Your task to perform on an android device: Checkthe settings for the Amazon Prime Music app Image 0: 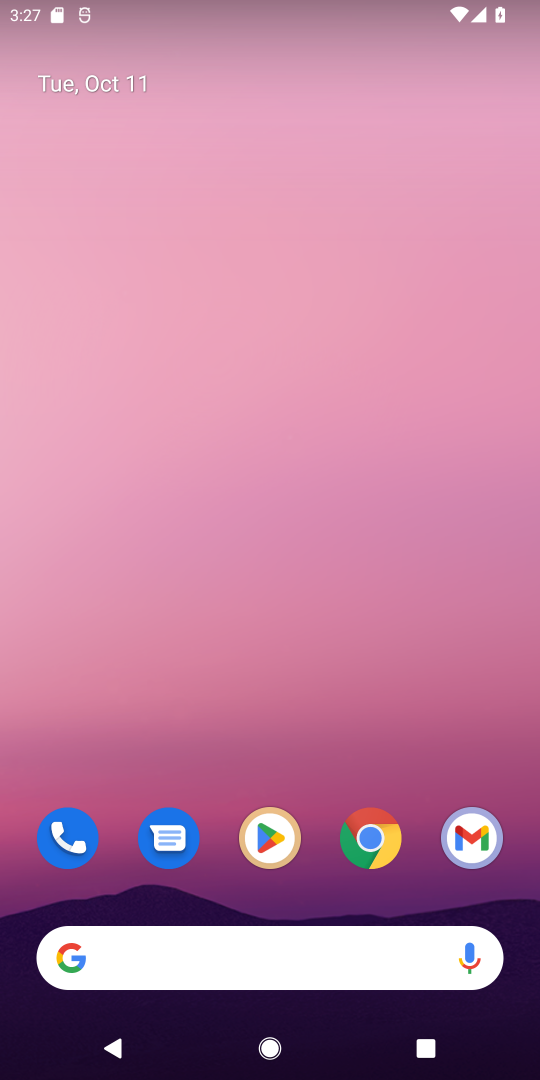
Step 0: click (379, 840)
Your task to perform on an android device: Checkthe settings for the Amazon Prime Music app Image 1: 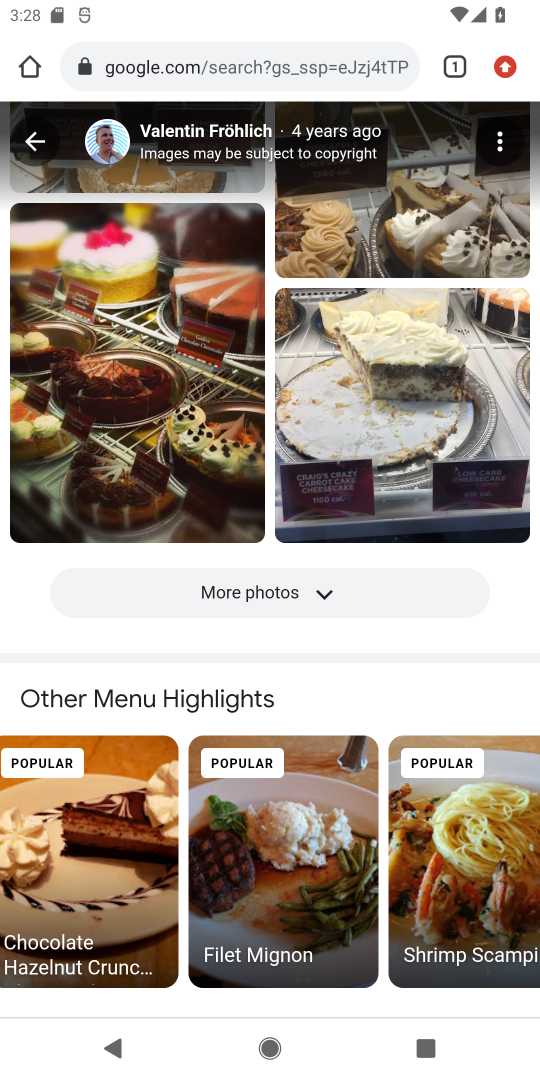
Step 1: click (161, 55)
Your task to perform on an android device: Checkthe settings for the Amazon Prime Music app Image 2: 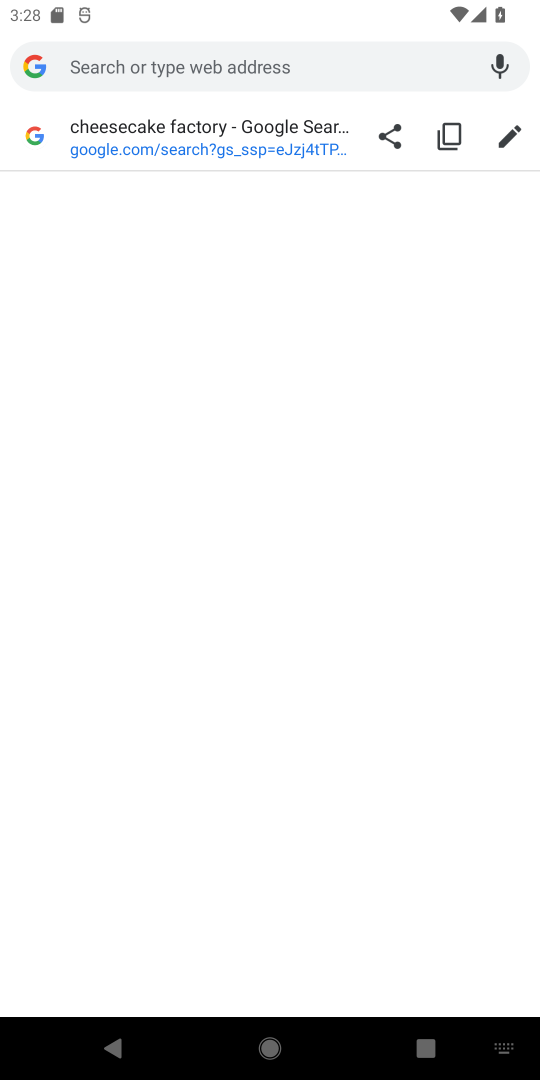
Step 2: type "amazon prime music app"
Your task to perform on an android device: Checkthe settings for the Amazon Prime Music app Image 3: 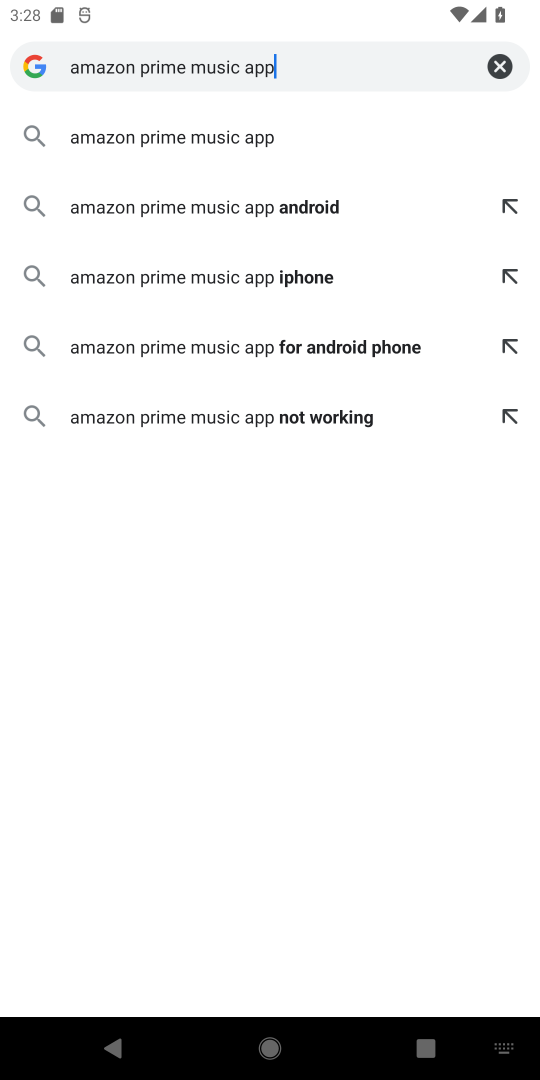
Step 3: click (225, 144)
Your task to perform on an android device: Checkthe settings for the Amazon Prime Music app Image 4: 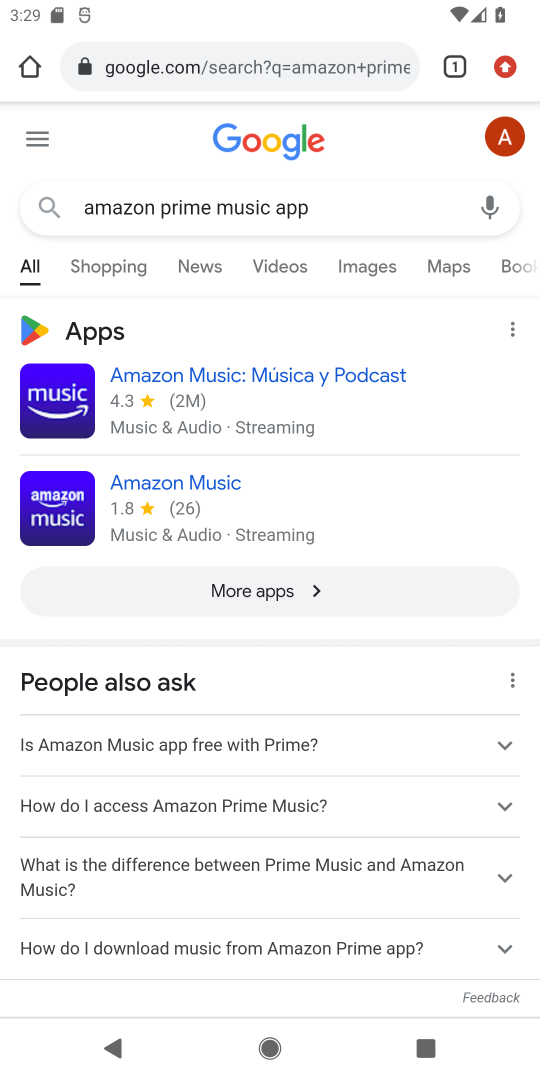
Step 4: click (149, 375)
Your task to perform on an android device: Checkthe settings for the Amazon Prime Music app Image 5: 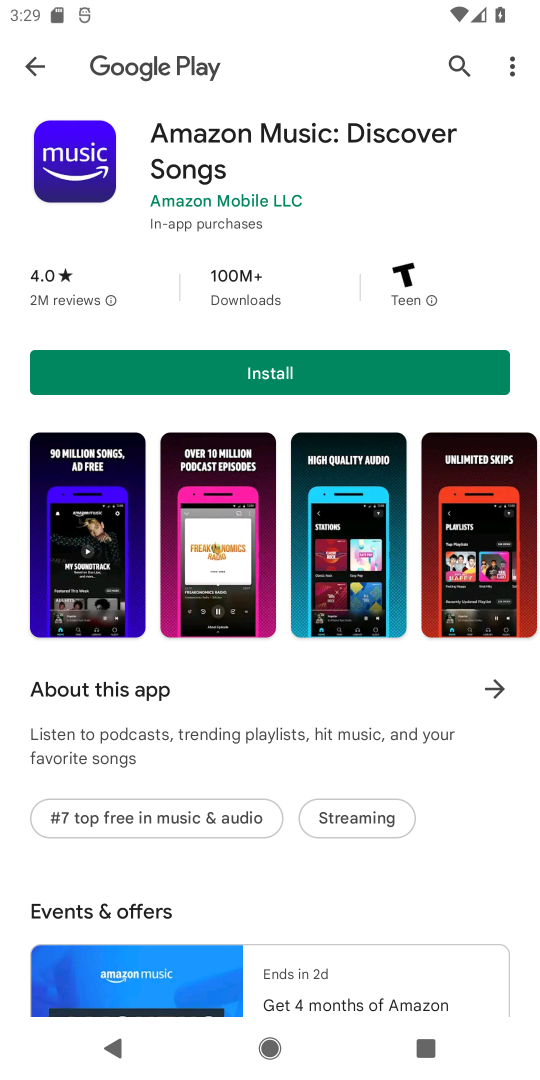
Step 5: click (149, 375)
Your task to perform on an android device: Checkthe settings for the Amazon Prime Music app Image 6: 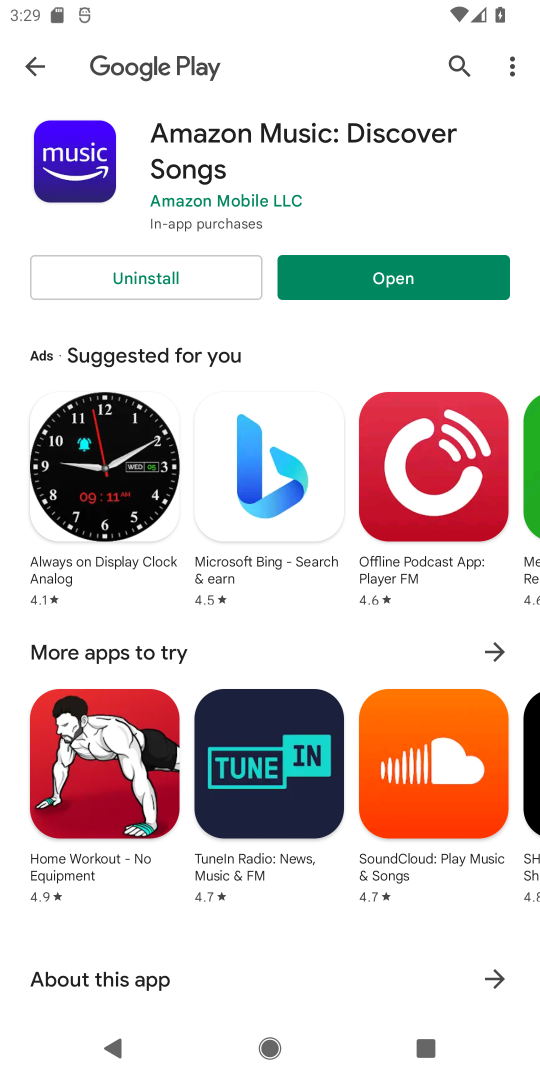
Step 6: click (398, 269)
Your task to perform on an android device: Checkthe settings for the Amazon Prime Music app Image 7: 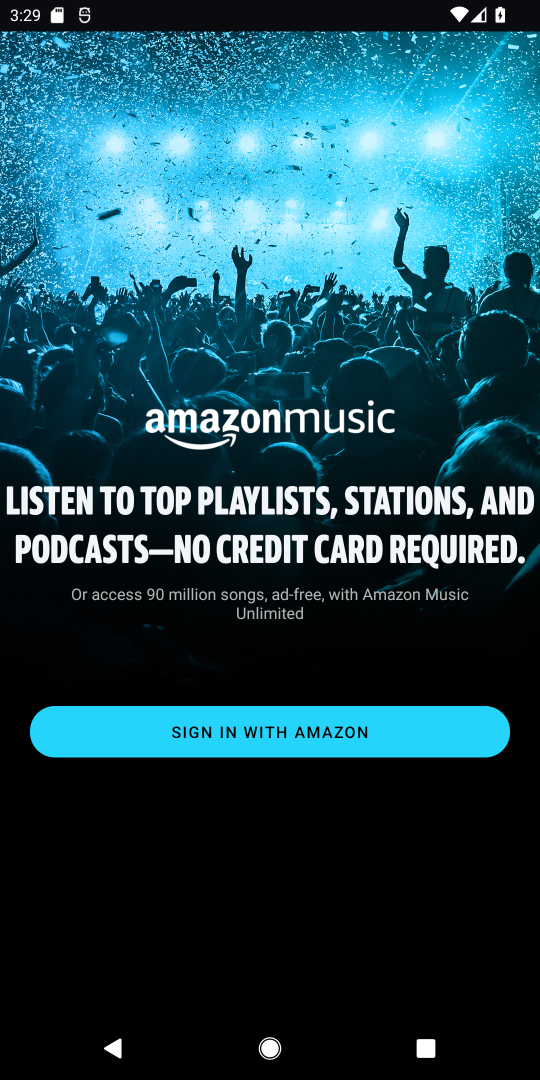
Step 7: click (344, 750)
Your task to perform on an android device: Checkthe settings for the Amazon Prime Music app Image 8: 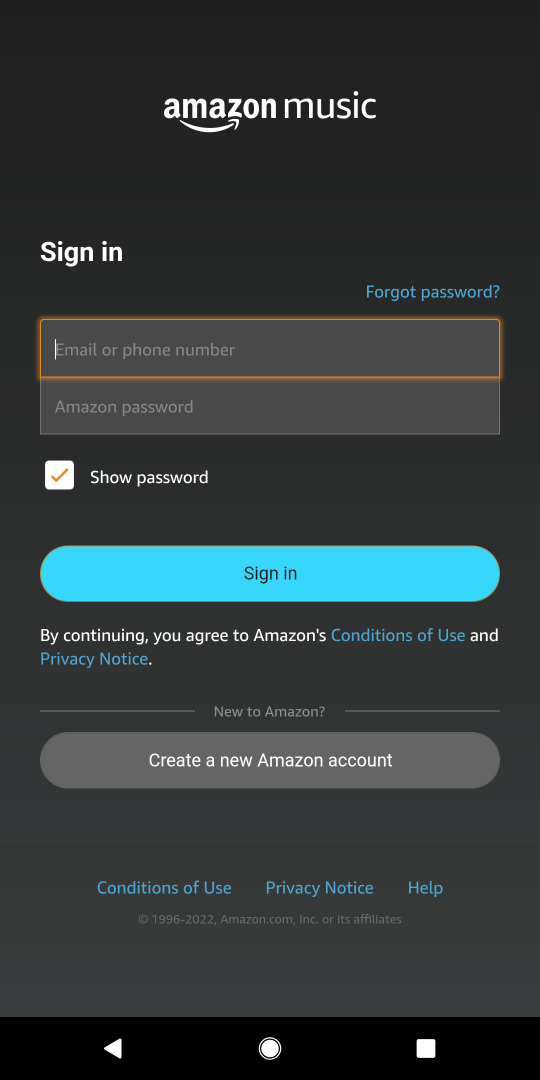
Step 8: press back button
Your task to perform on an android device: Checkthe settings for the Amazon Prime Music app Image 9: 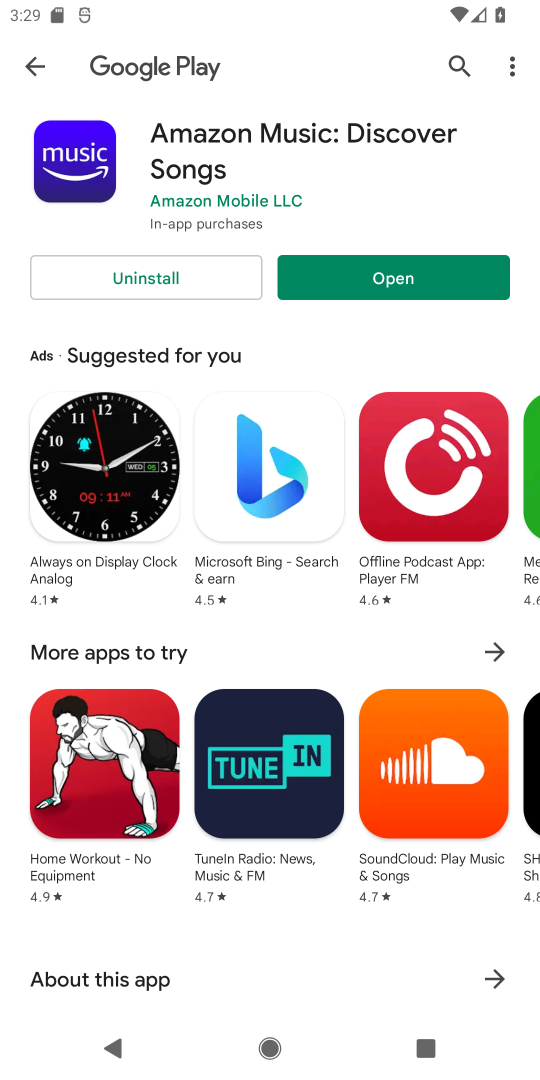
Step 9: drag from (235, 499) to (224, 385)
Your task to perform on an android device: Checkthe settings for the Amazon Prime Music app Image 10: 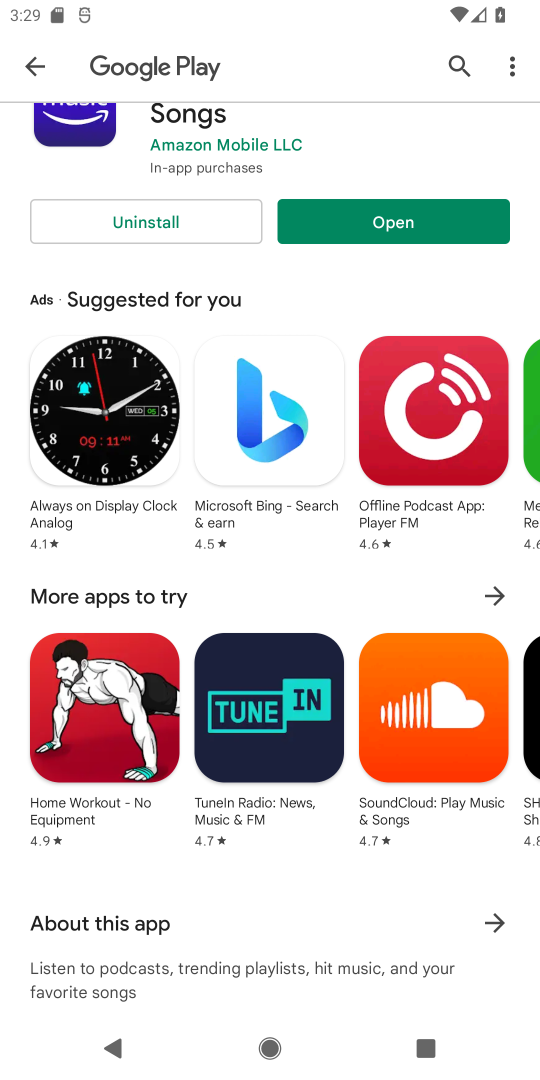
Step 10: drag from (237, 713) to (252, 298)
Your task to perform on an android device: Checkthe settings for the Amazon Prime Music app Image 11: 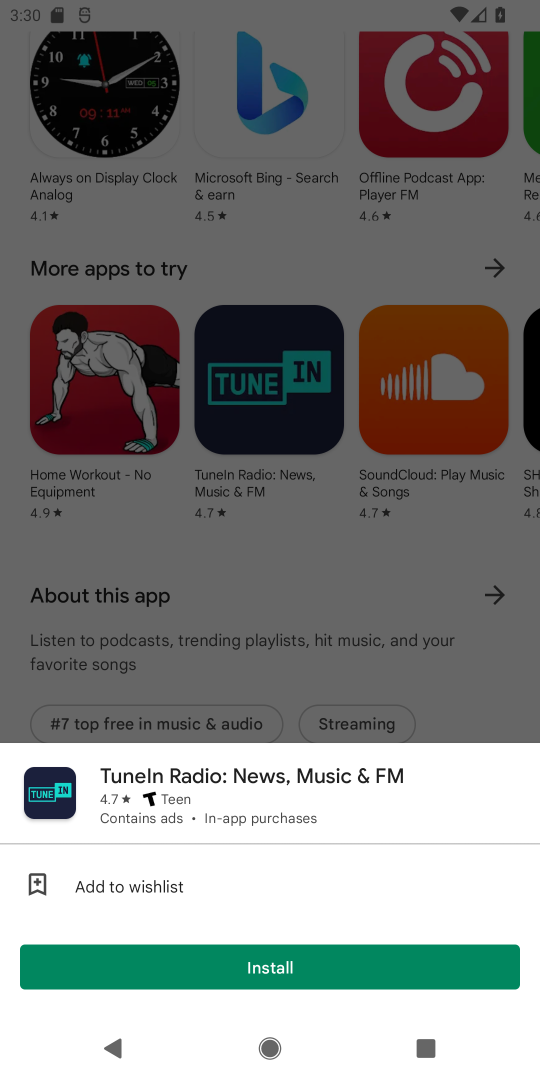
Step 11: click (539, 769)
Your task to perform on an android device: Checkthe settings for the Amazon Prime Music app Image 12: 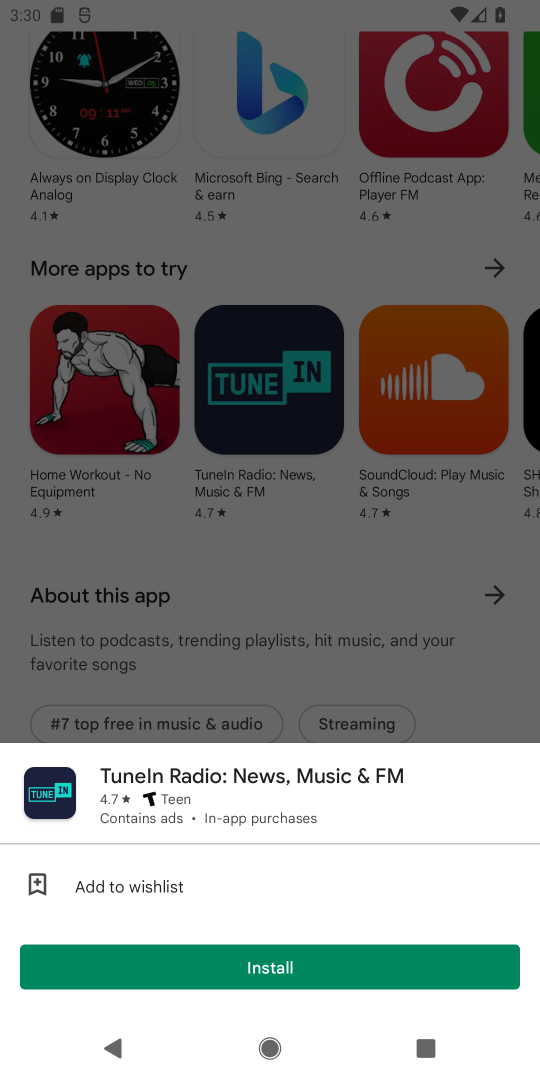
Step 12: drag from (387, 548) to (408, 353)
Your task to perform on an android device: Checkthe settings for the Amazon Prime Music app Image 13: 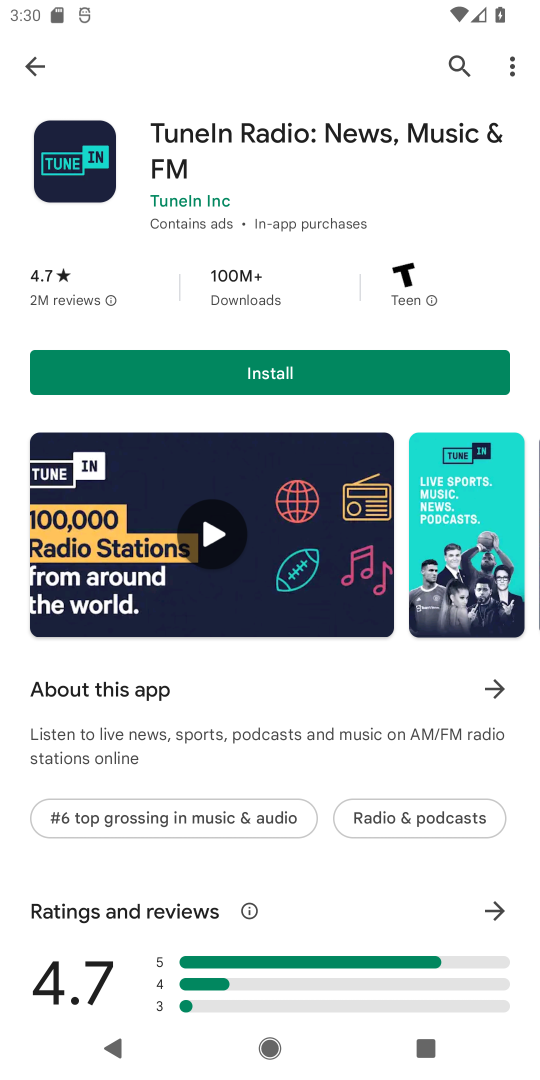
Step 13: press home button
Your task to perform on an android device: Checkthe settings for the Amazon Prime Music app Image 14: 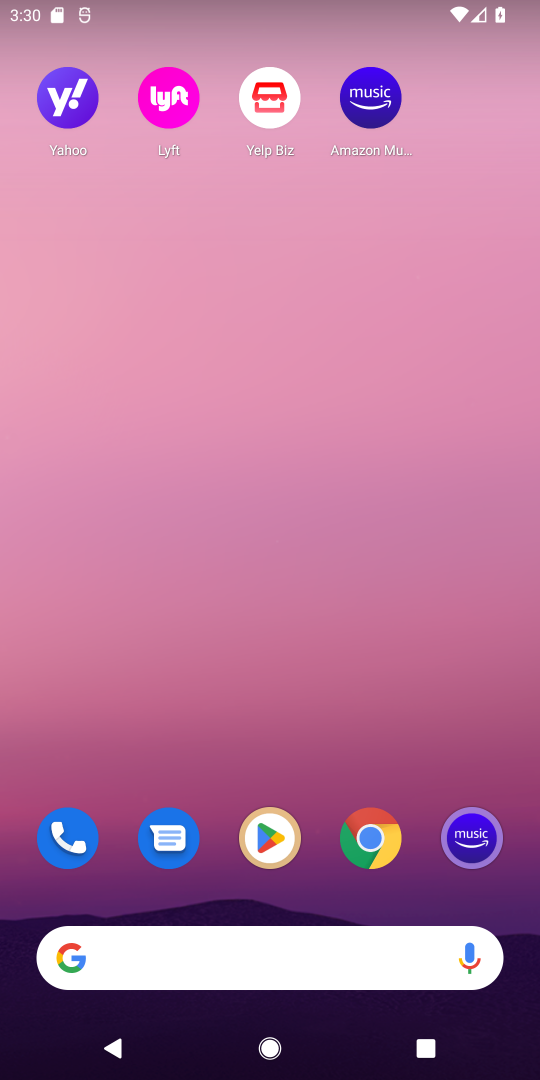
Step 14: drag from (273, 716) to (293, 314)
Your task to perform on an android device: Checkthe settings for the Amazon Prime Music app Image 15: 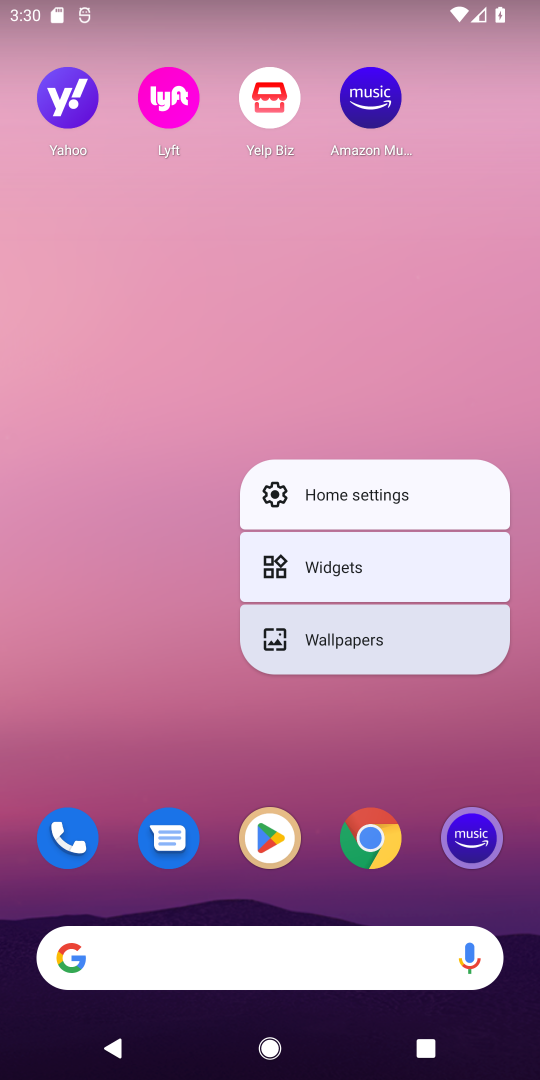
Step 15: drag from (200, 766) to (209, 252)
Your task to perform on an android device: Checkthe settings for the Amazon Prime Music app Image 16: 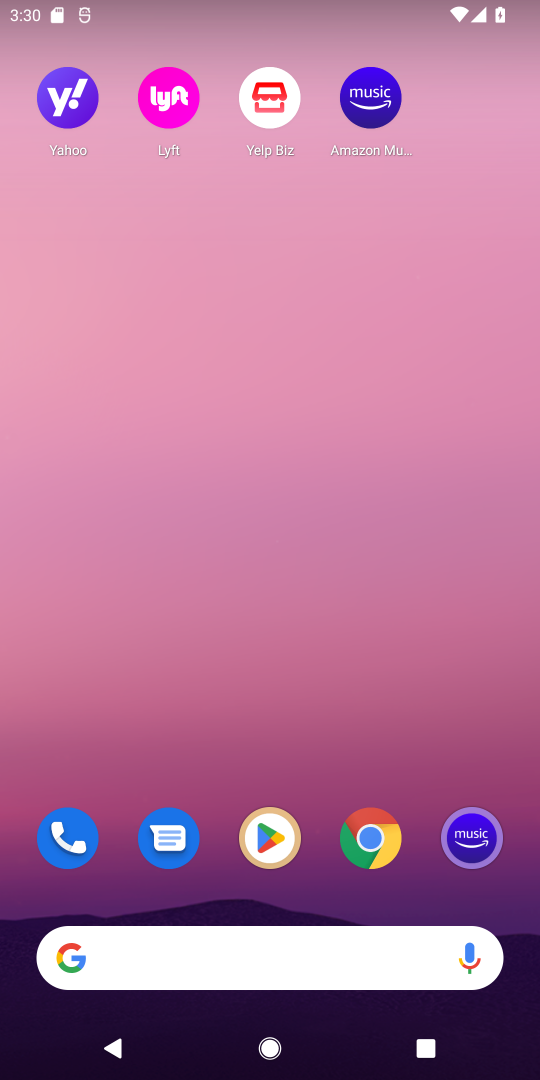
Step 16: click (479, 838)
Your task to perform on an android device: Checkthe settings for the Amazon Prime Music app Image 17: 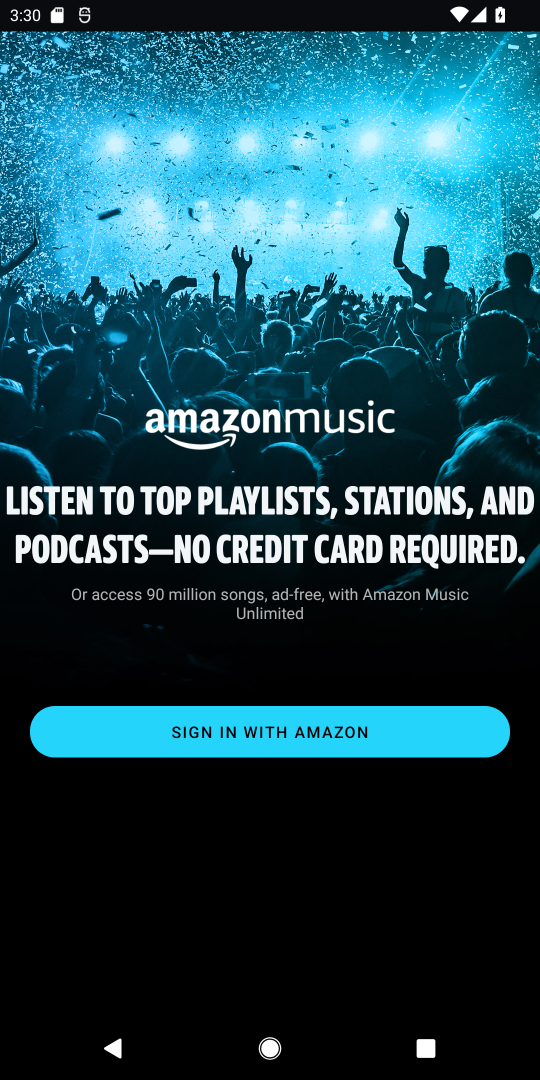
Step 17: click (323, 746)
Your task to perform on an android device: Checkthe settings for the Amazon Prime Music app Image 18: 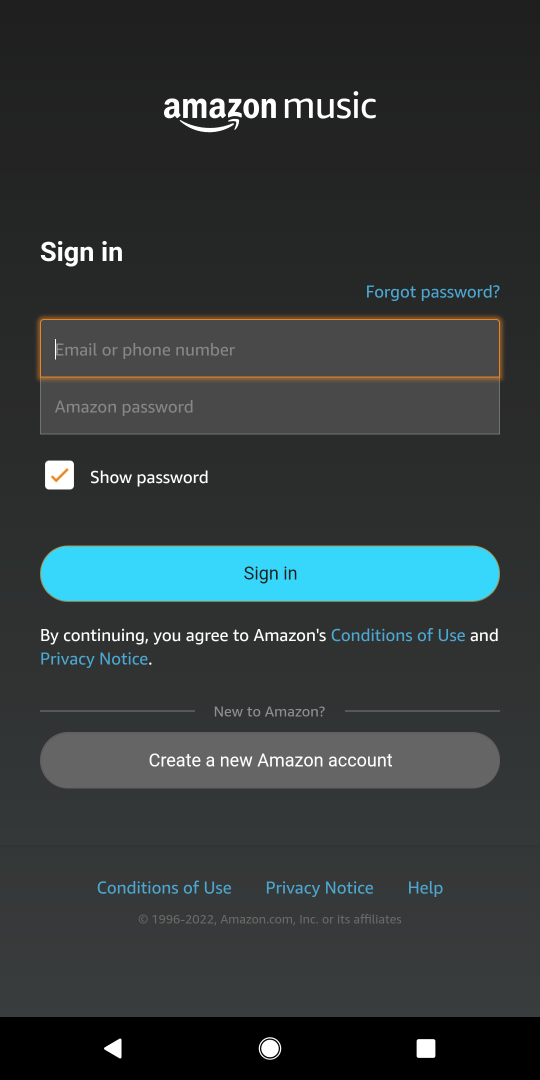
Step 18: task complete